Your task to perform on an android device: Go to Google Image 0: 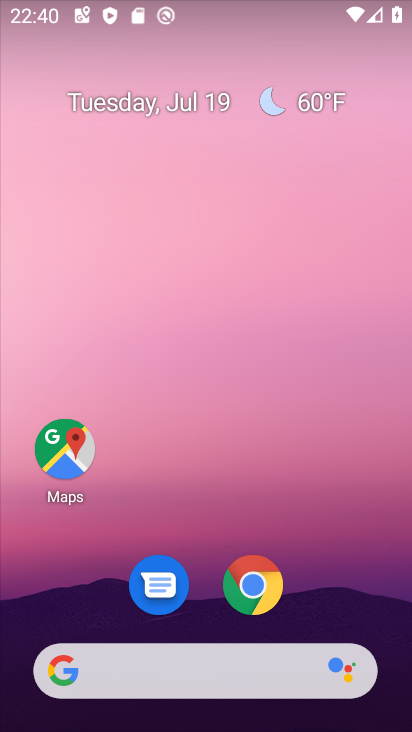
Step 0: drag from (356, 527) to (333, 59)
Your task to perform on an android device: Go to Google Image 1: 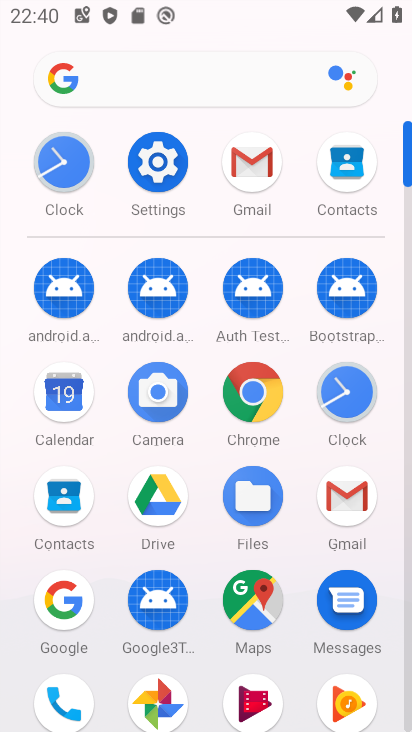
Step 1: click (70, 612)
Your task to perform on an android device: Go to Google Image 2: 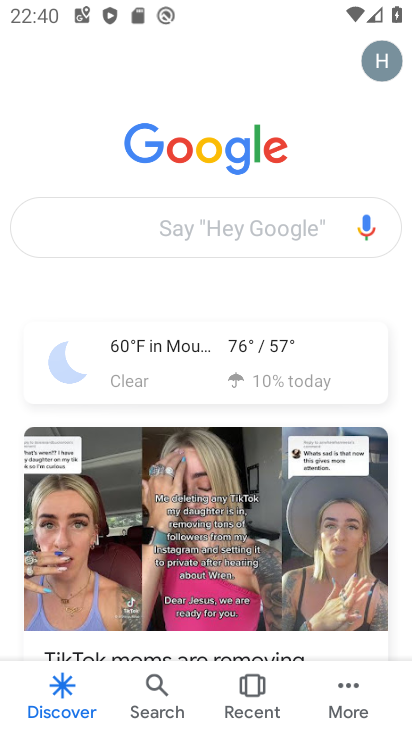
Step 2: task complete